Your task to perform on an android device: Show the shopping cart on ebay. Image 0: 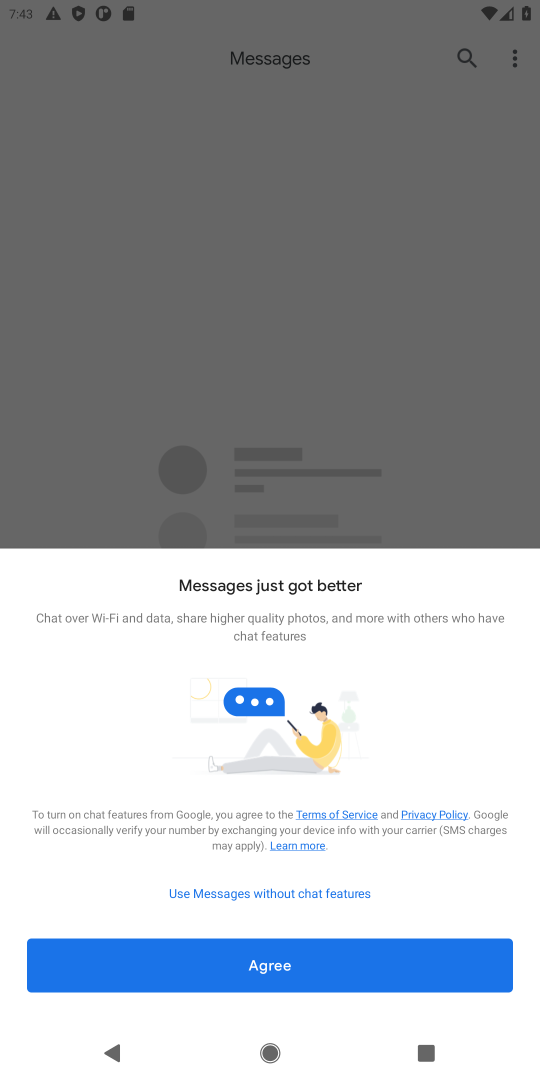
Step 0: press home button
Your task to perform on an android device: Show the shopping cart on ebay. Image 1: 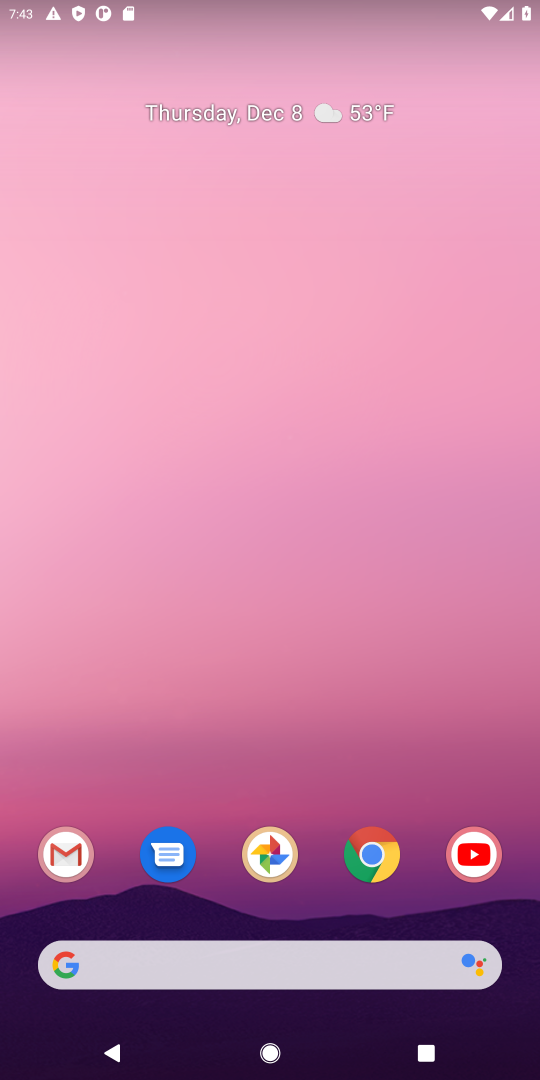
Step 1: drag from (286, 939) to (402, 194)
Your task to perform on an android device: Show the shopping cart on ebay. Image 2: 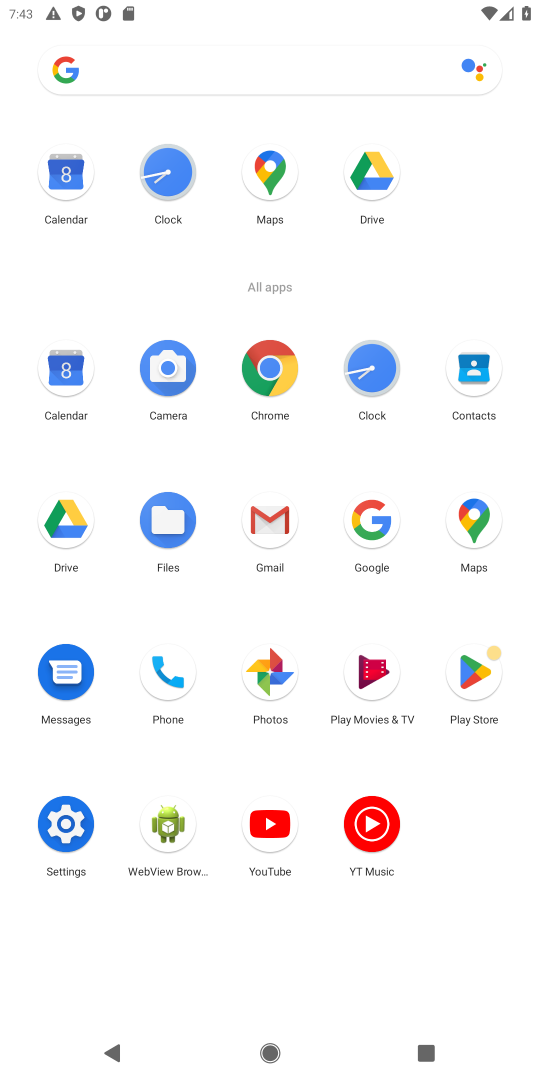
Step 2: click (369, 520)
Your task to perform on an android device: Show the shopping cart on ebay. Image 3: 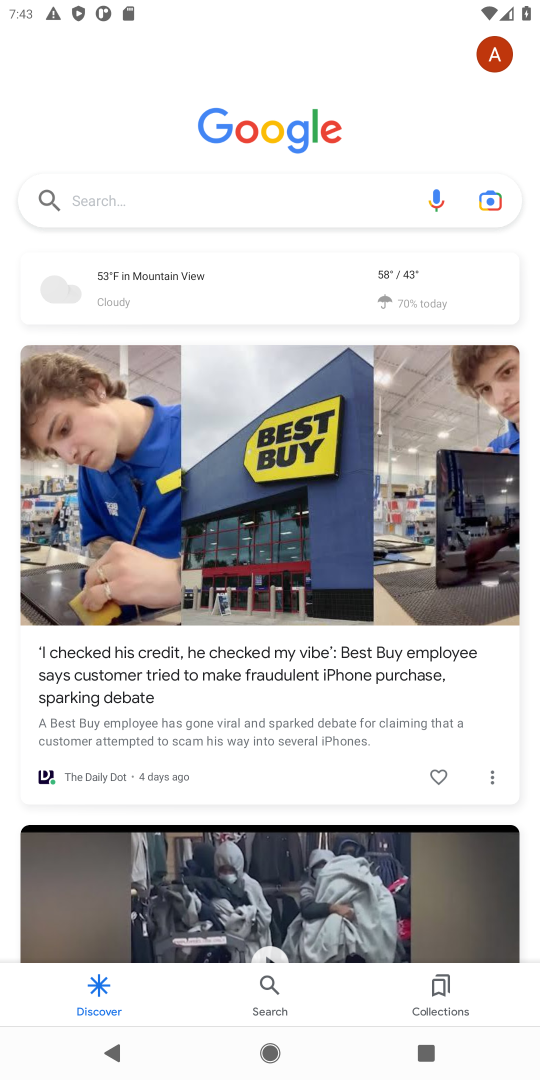
Step 3: click (129, 201)
Your task to perform on an android device: Show the shopping cart on ebay. Image 4: 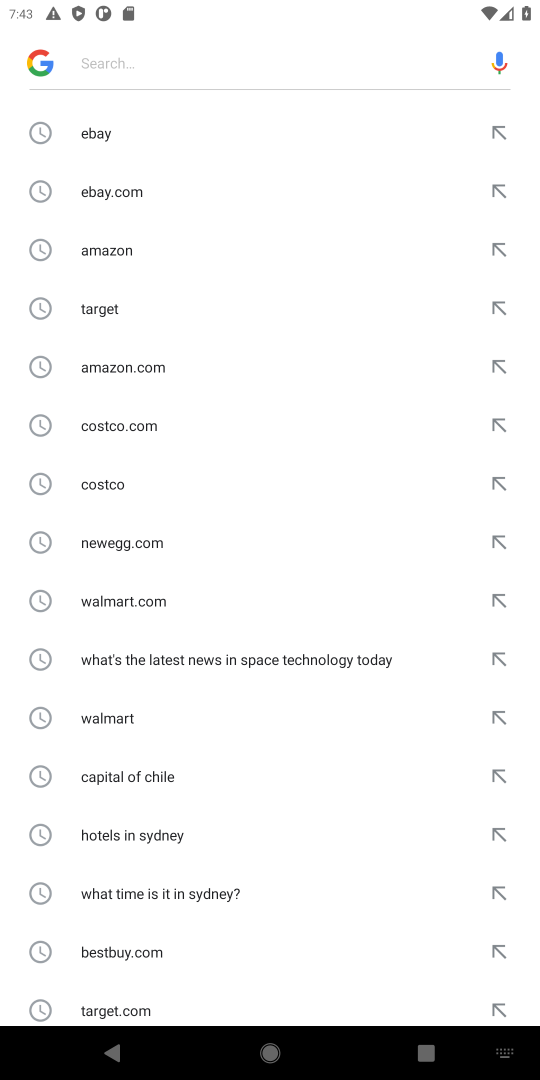
Step 4: click (507, 134)
Your task to perform on an android device: Show the shopping cart on ebay. Image 5: 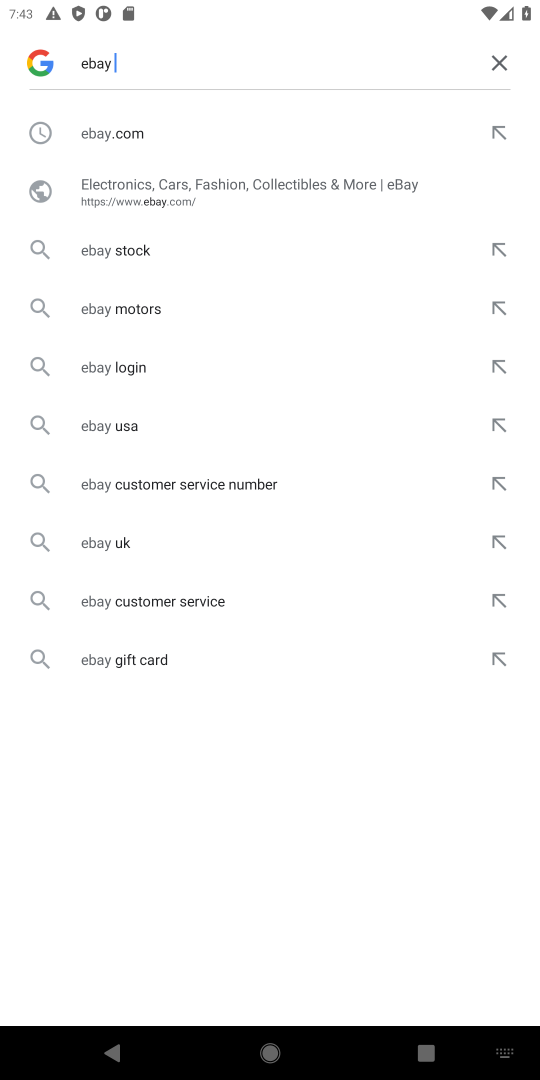
Step 5: click (138, 201)
Your task to perform on an android device: Show the shopping cart on ebay. Image 6: 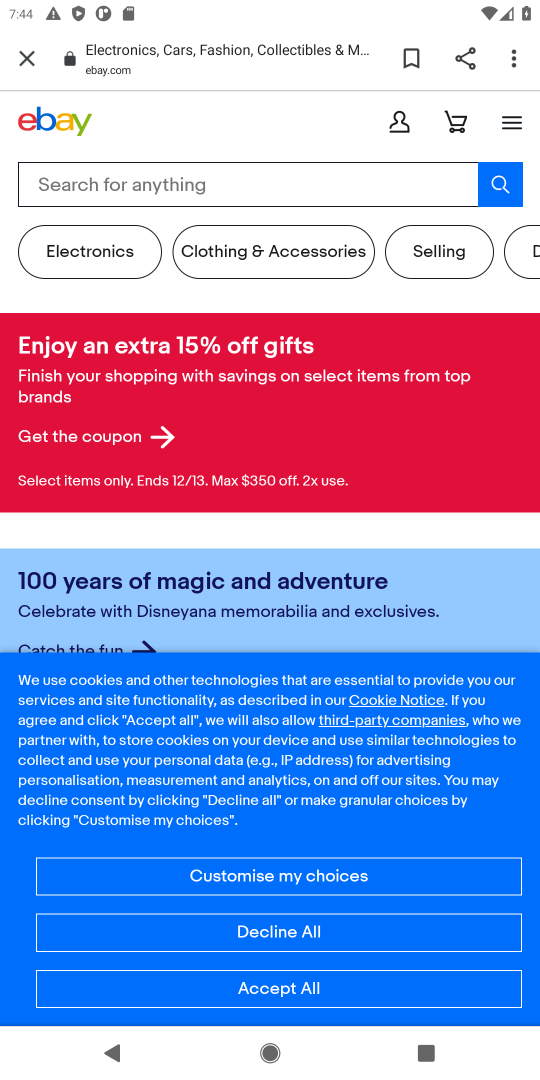
Step 6: click (457, 127)
Your task to perform on an android device: Show the shopping cart on ebay. Image 7: 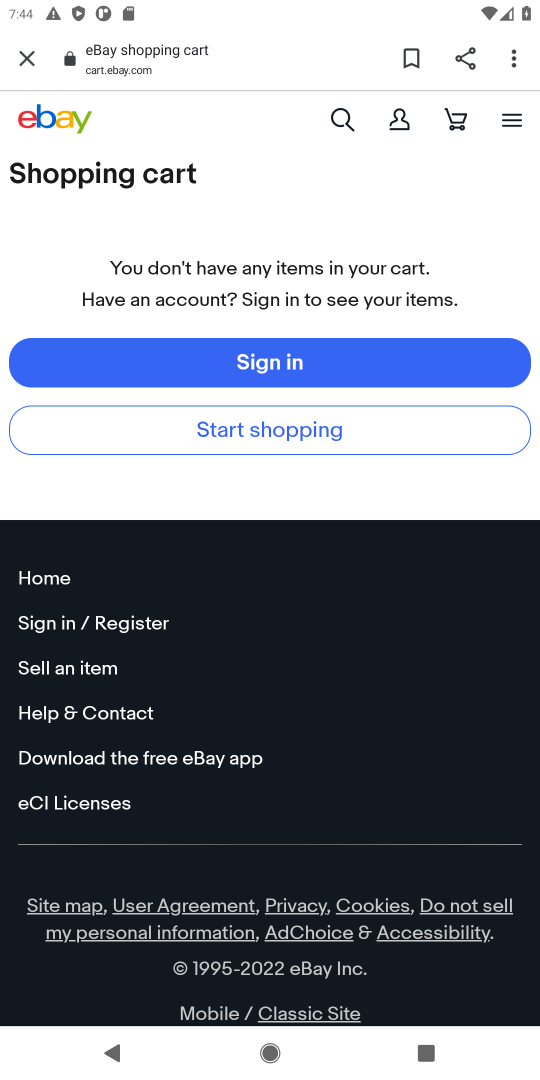
Step 7: task complete